Your task to perform on an android device: open app "VLC for Android" (install if not already installed) and go to login screen Image 0: 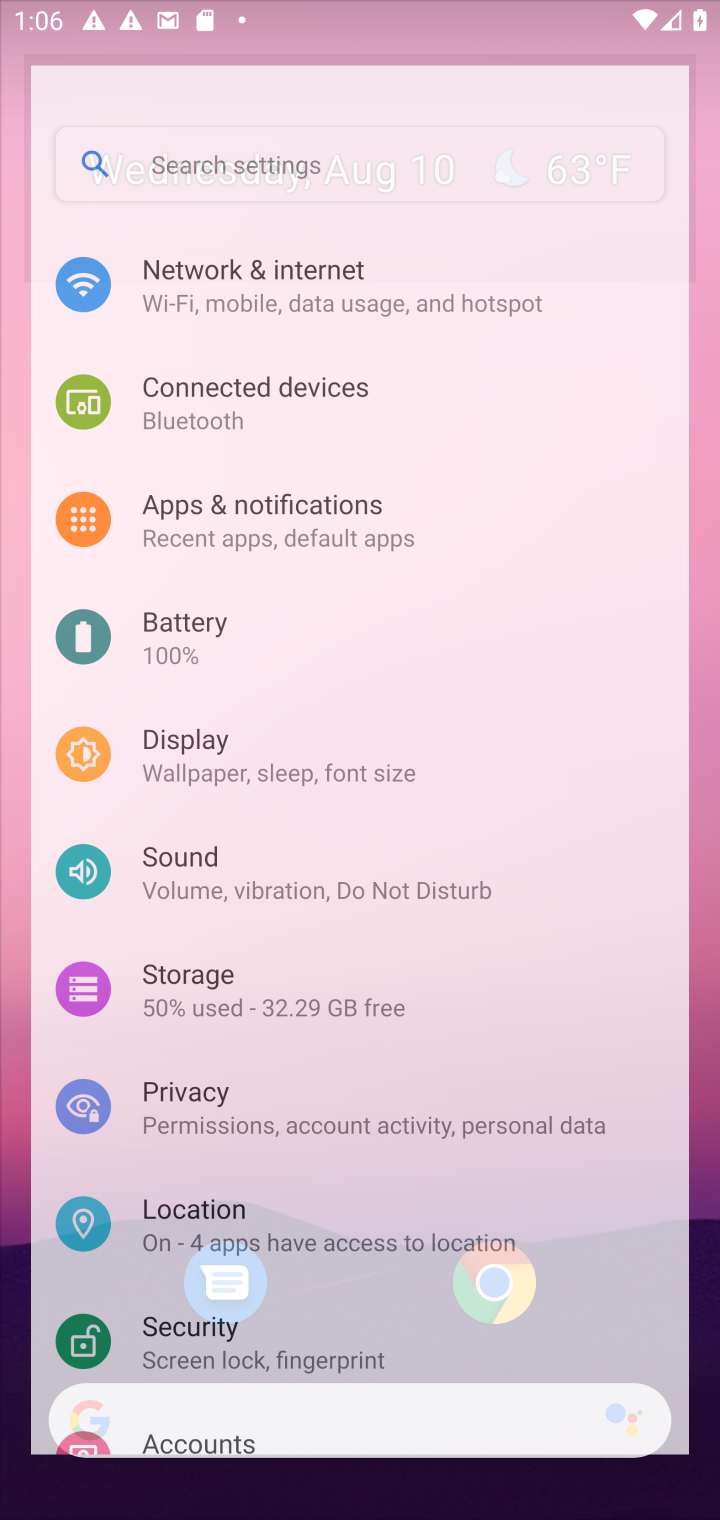
Step 0: press home button
Your task to perform on an android device: open app "VLC for Android" (install if not already installed) and go to login screen Image 1: 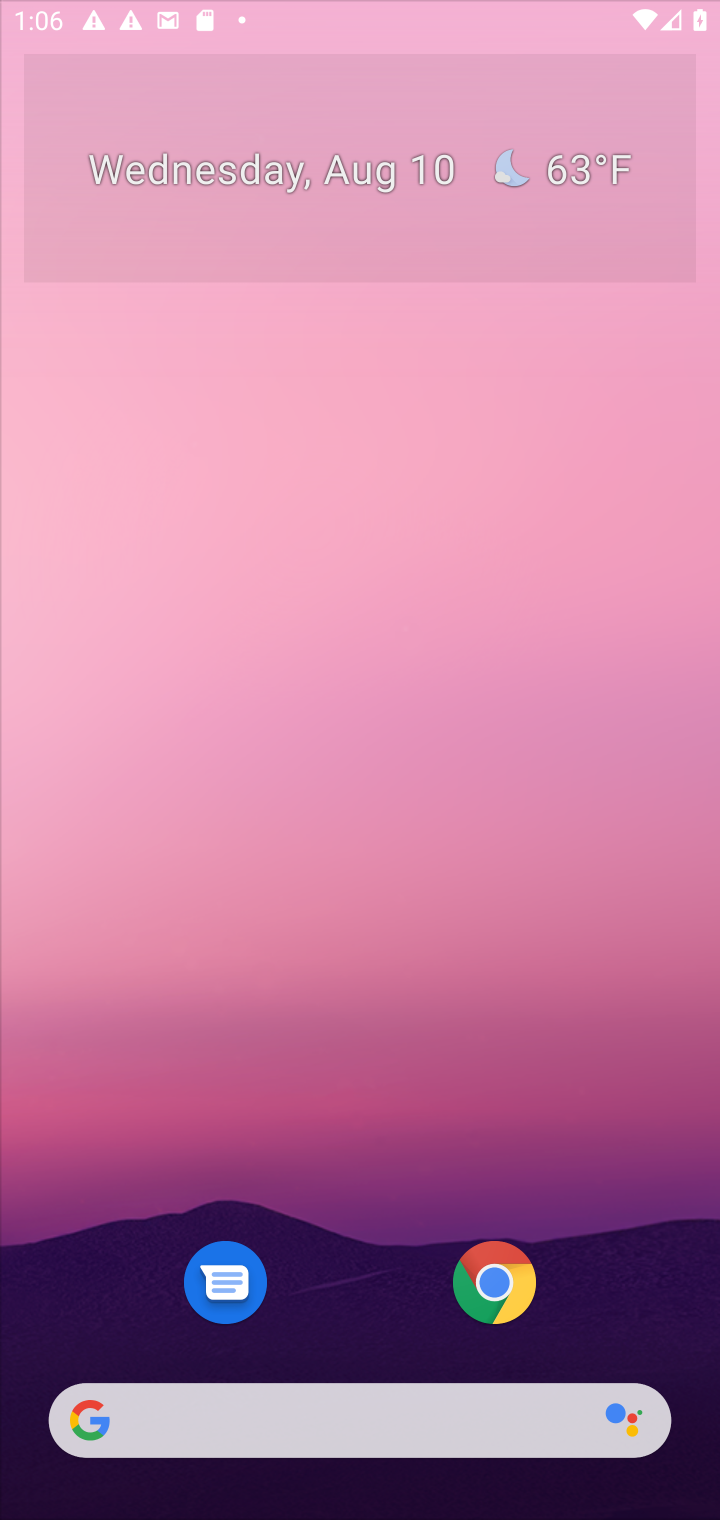
Step 1: press home button
Your task to perform on an android device: open app "VLC for Android" (install if not already installed) and go to login screen Image 2: 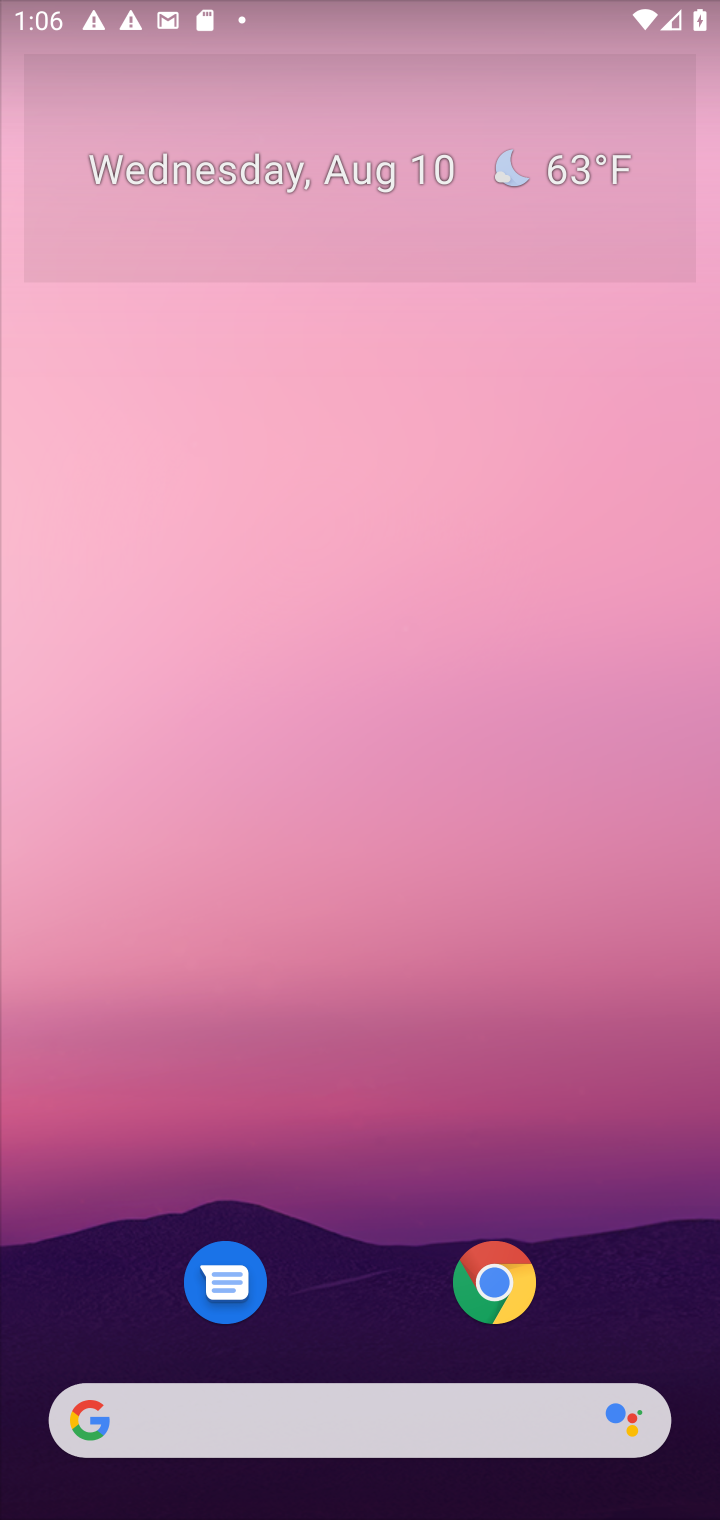
Step 2: drag from (258, 1115) to (335, 276)
Your task to perform on an android device: open app "VLC for Android" (install if not already installed) and go to login screen Image 3: 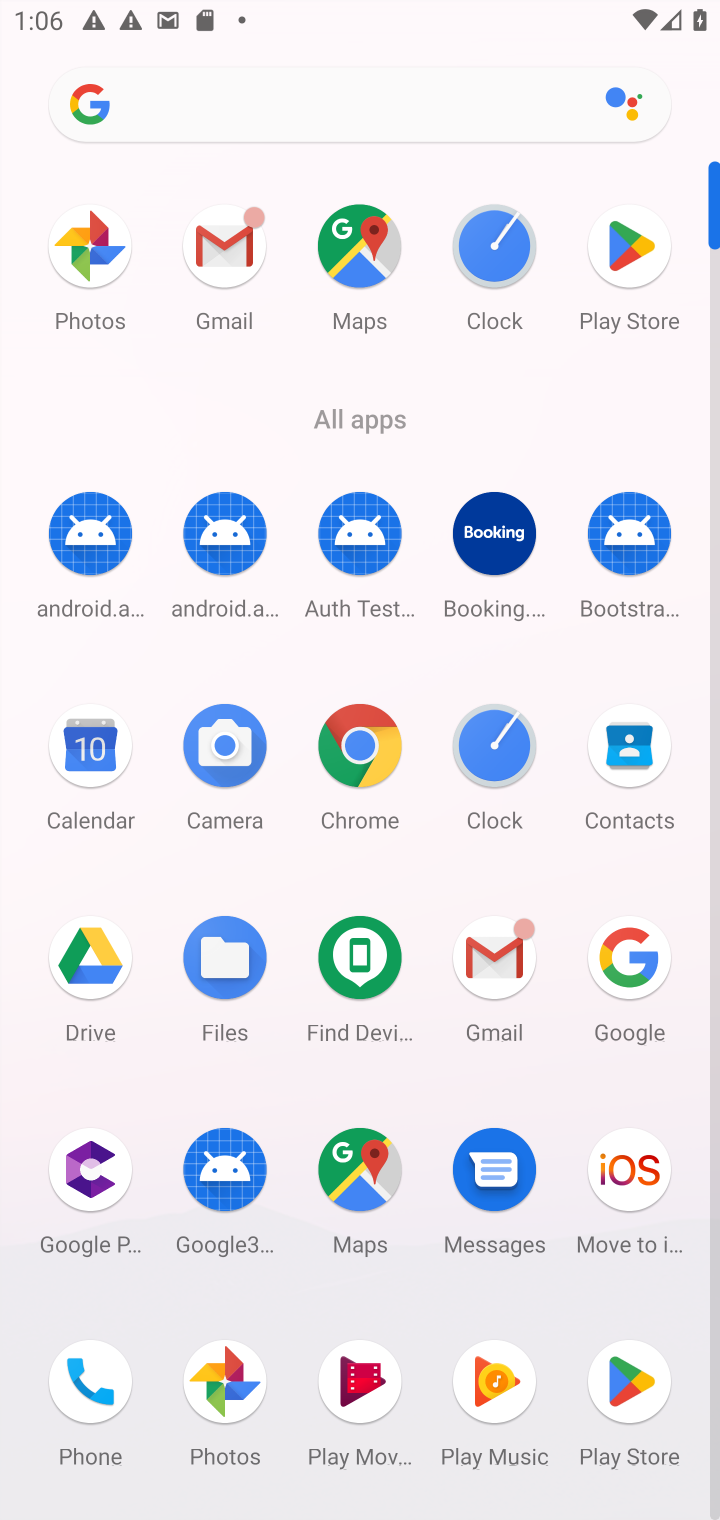
Step 3: drag from (195, 1142) to (405, 427)
Your task to perform on an android device: open app "VLC for Android" (install if not already installed) and go to login screen Image 4: 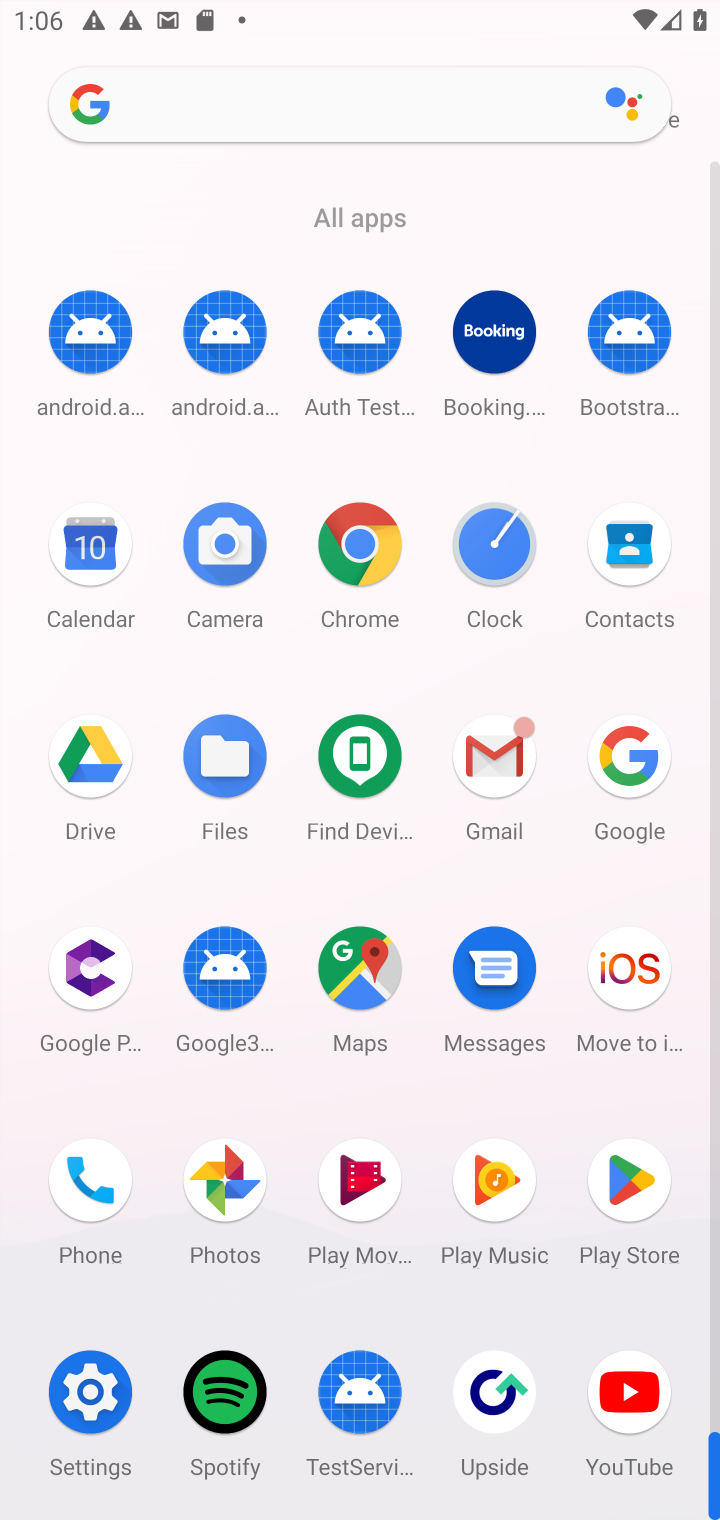
Step 4: click (640, 1155)
Your task to perform on an android device: open app "VLC for Android" (install if not already installed) and go to login screen Image 5: 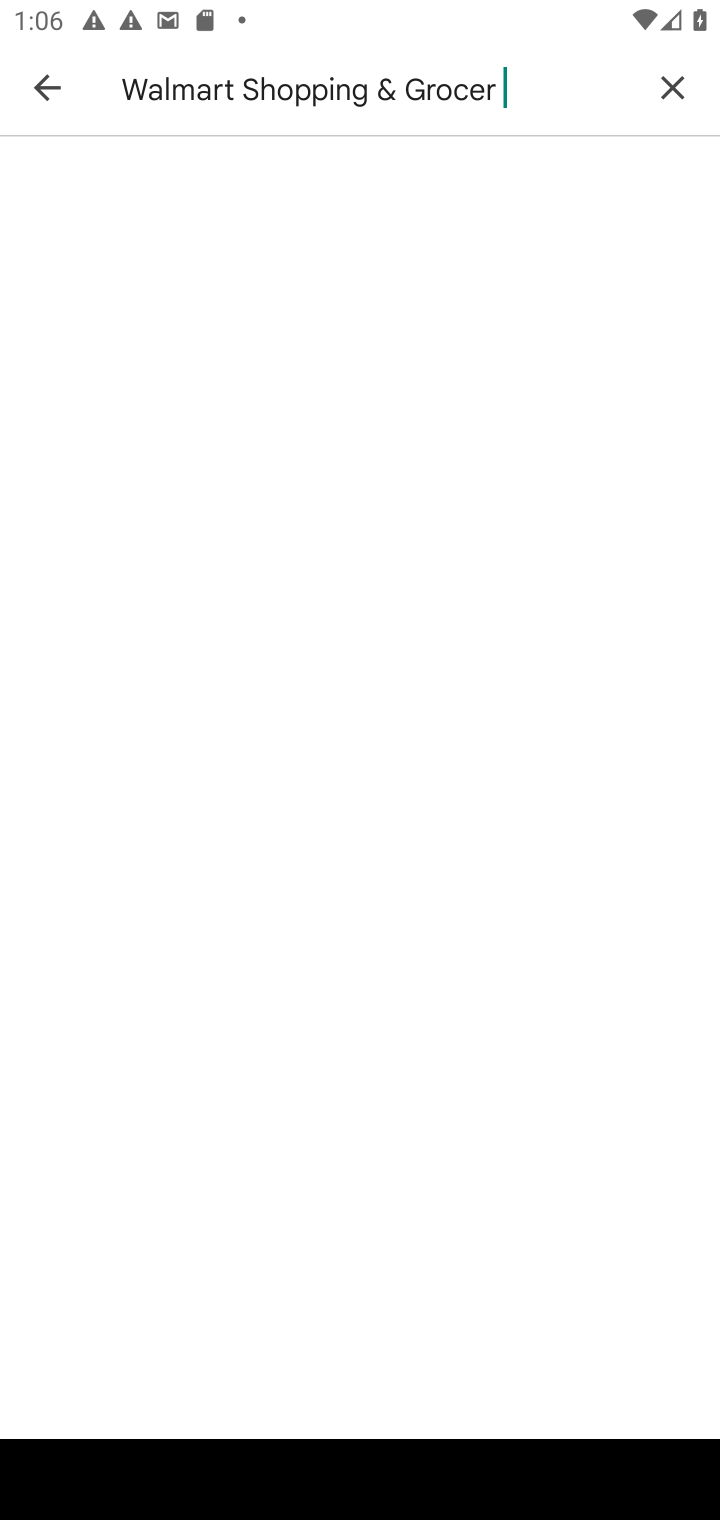
Step 5: click (647, 77)
Your task to perform on an android device: open app "VLC for Android" (install if not already installed) and go to login screen Image 6: 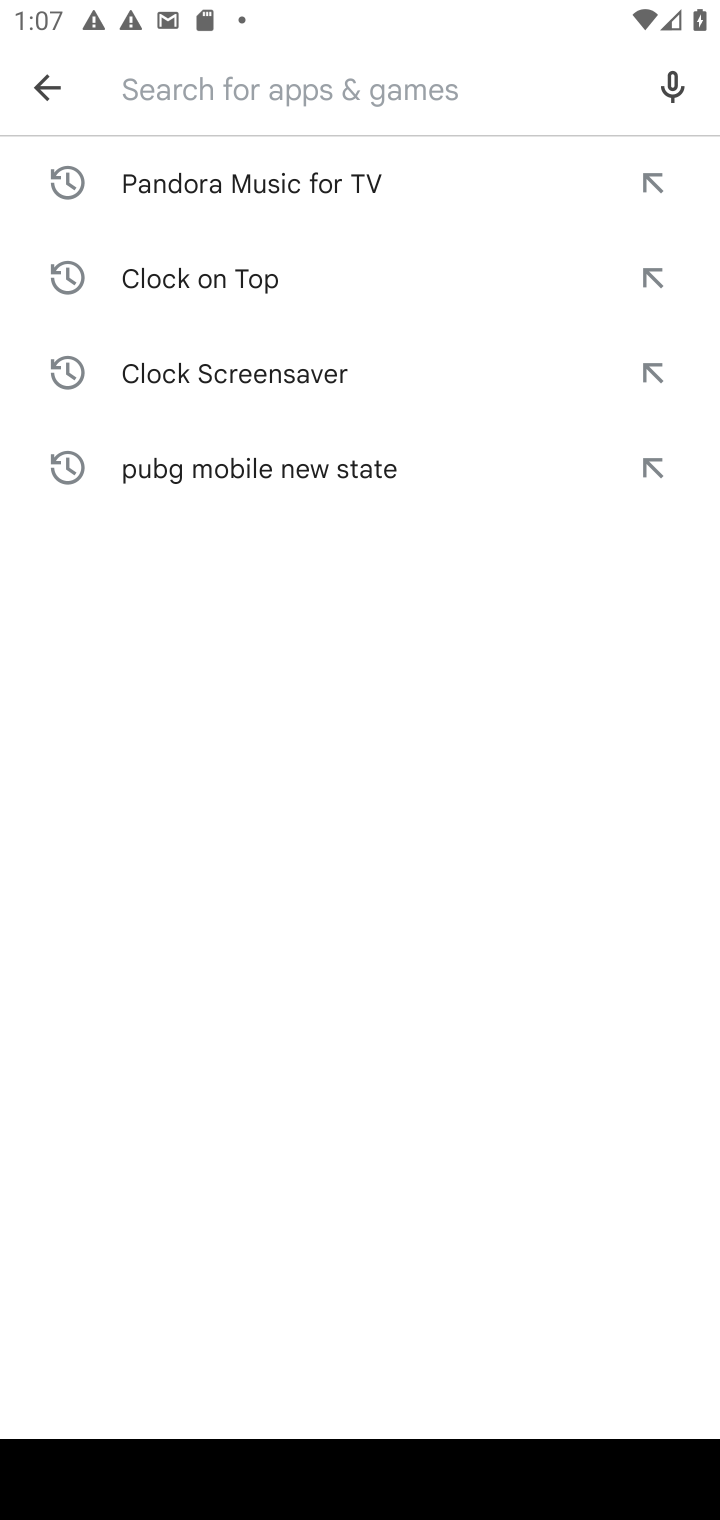
Step 6: click (365, 79)
Your task to perform on an android device: open app "VLC for Android" (install if not already installed) and go to login screen Image 7: 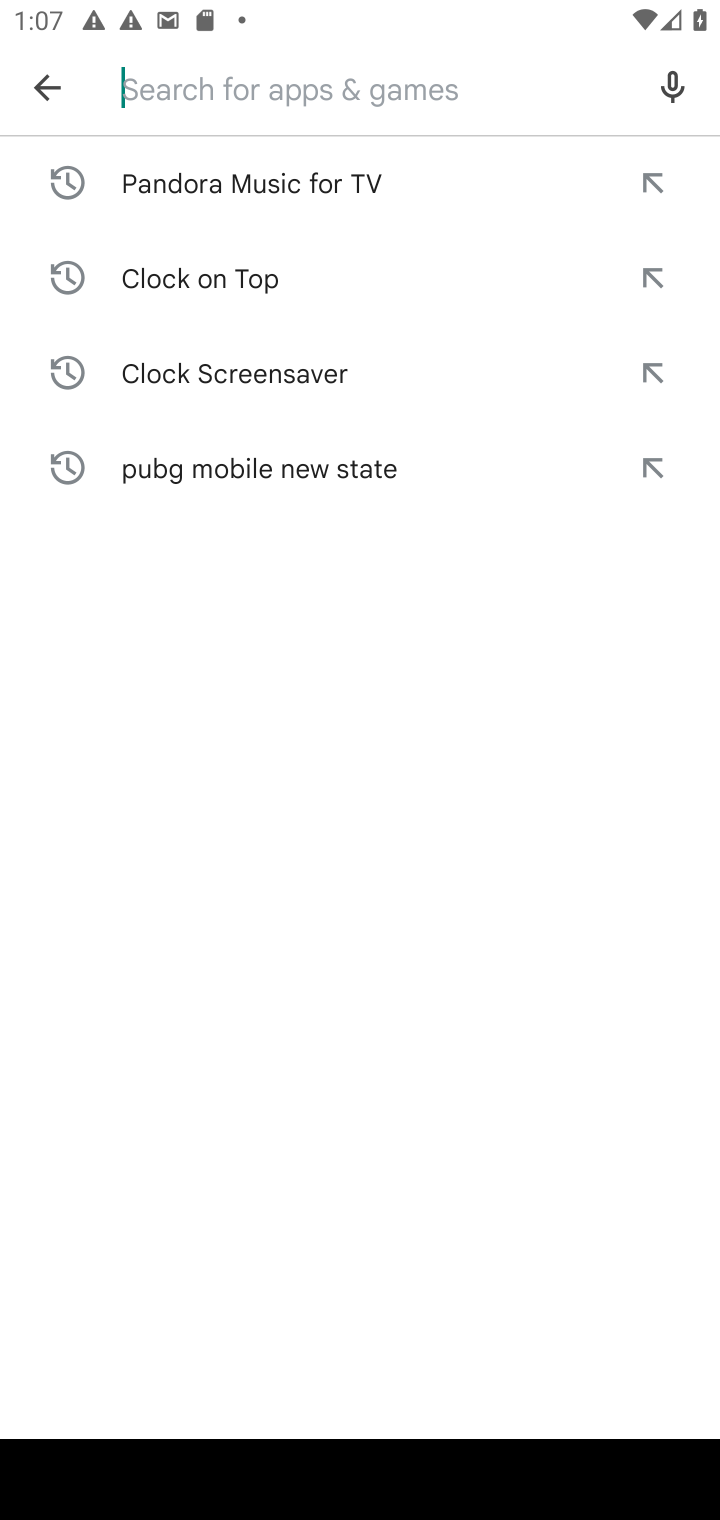
Step 7: type "VLC for Android" "
Your task to perform on an android device: open app "VLC for Android" (install if not already installed) and go to login screen Image 8: 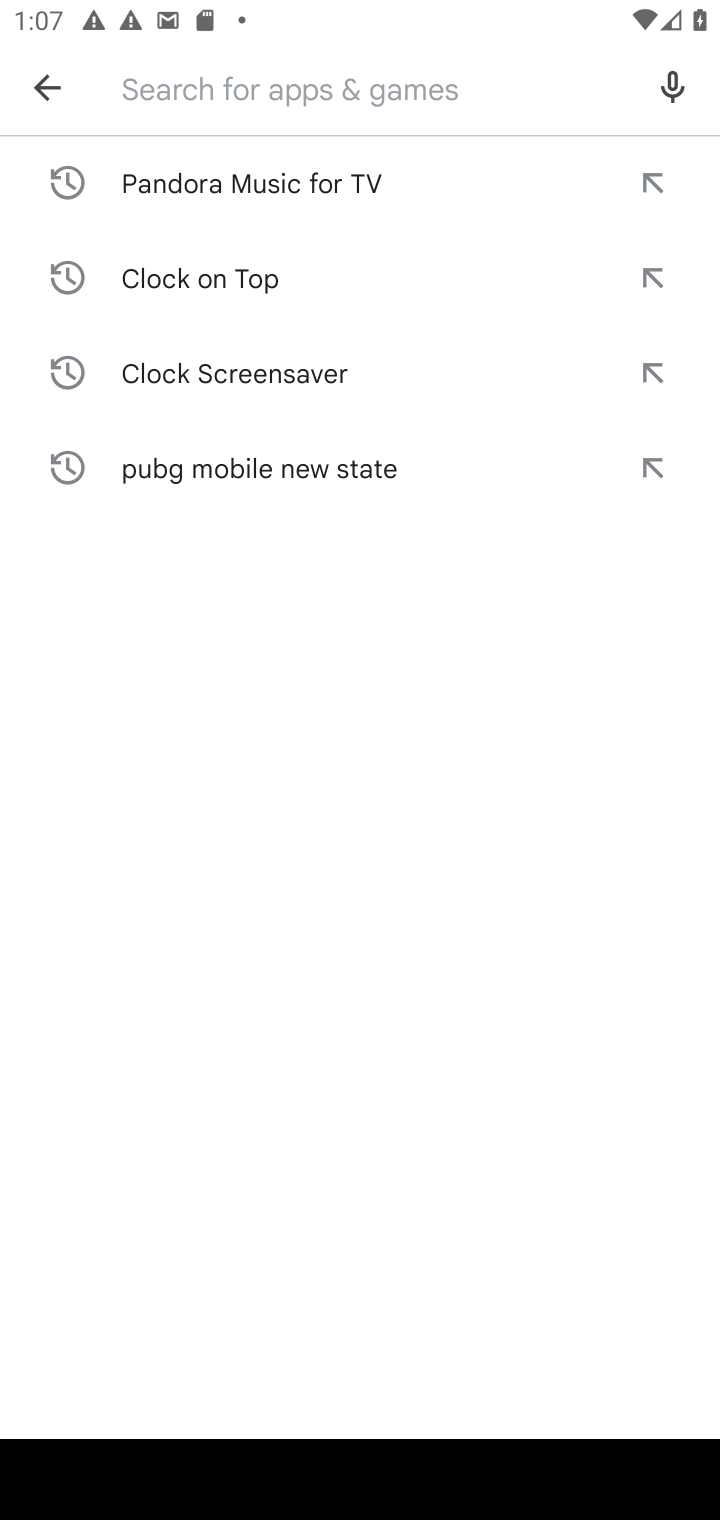
Step 8: click (309, 88)
Your task to perform on an android device: open app "VLC for Android" (install if not already installed) and go to login screen Image 9: 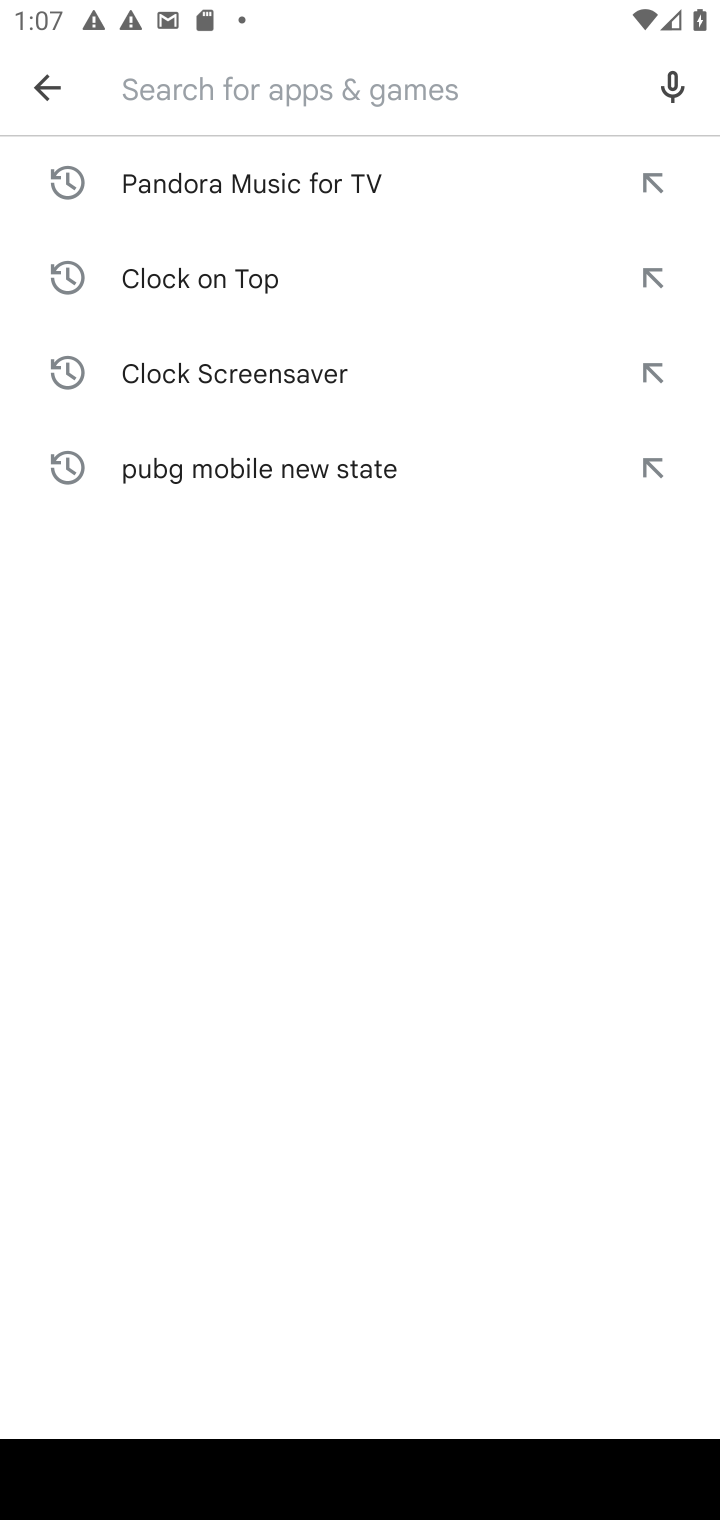
Step 9: type "vlc "
Your task to perform on an android device: open app "VLC for Android" (install if not already installed) and go to login screen Image 10: 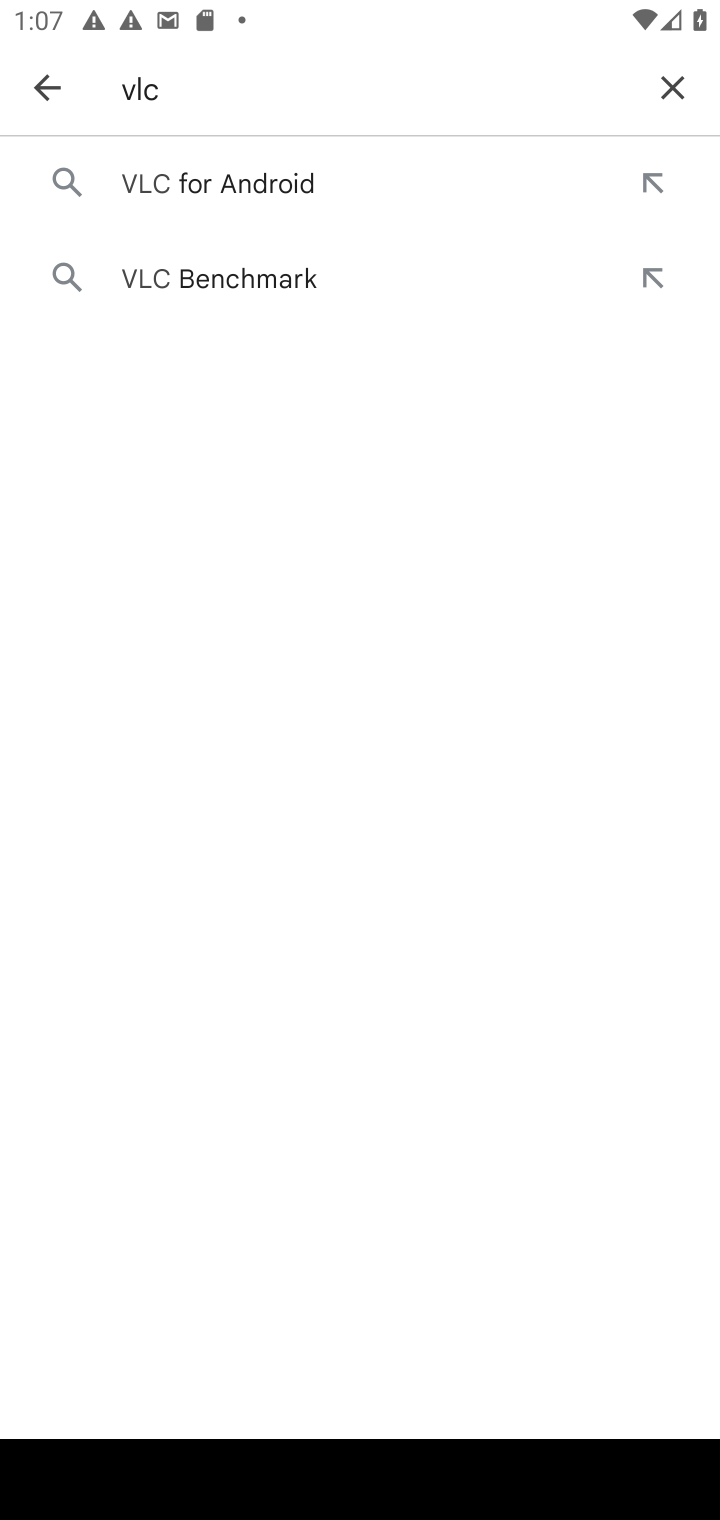
Step 10: click (304, 178)
Your task to perform on an android device: open app "VLC for Android" (install if not already installed) and go to login screen Image 11: 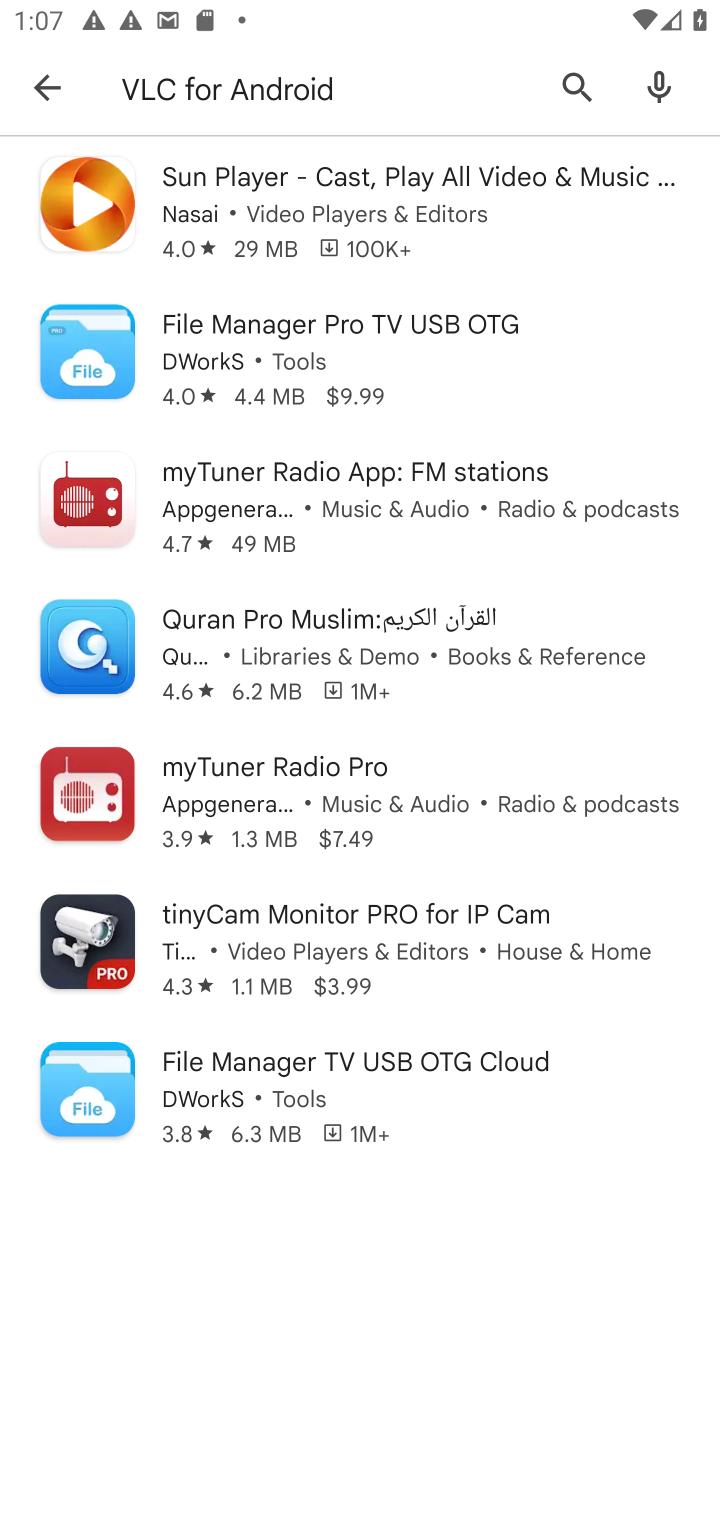
Step 11: click (409, 201)
Your task to perform on an android device: open app "VLC for Android" (install if not already installed) and go to login screen Image 12: 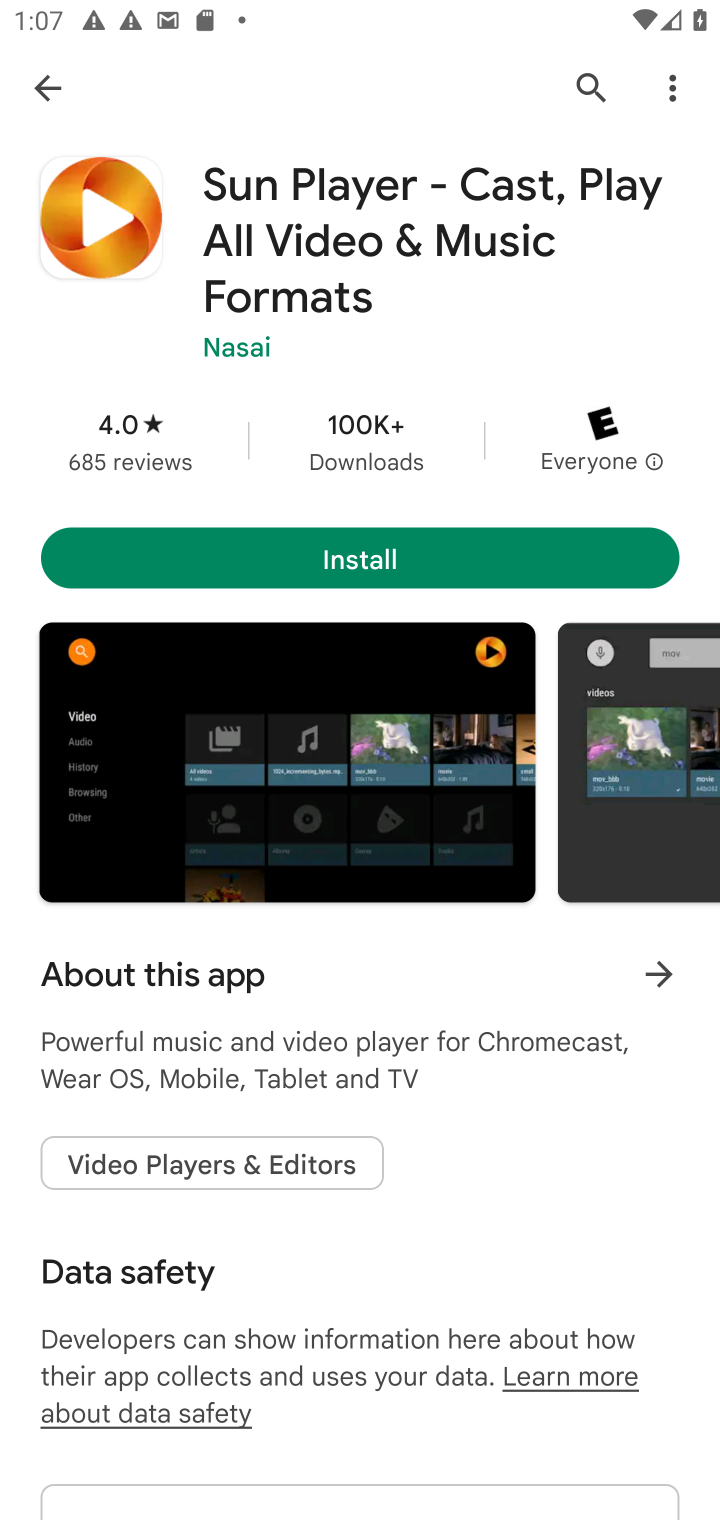
Step 12: click (427, 537)
Your task to perform on an android device: open app "VLC for Android" (install if not already installed) and go to login screen Image 13: 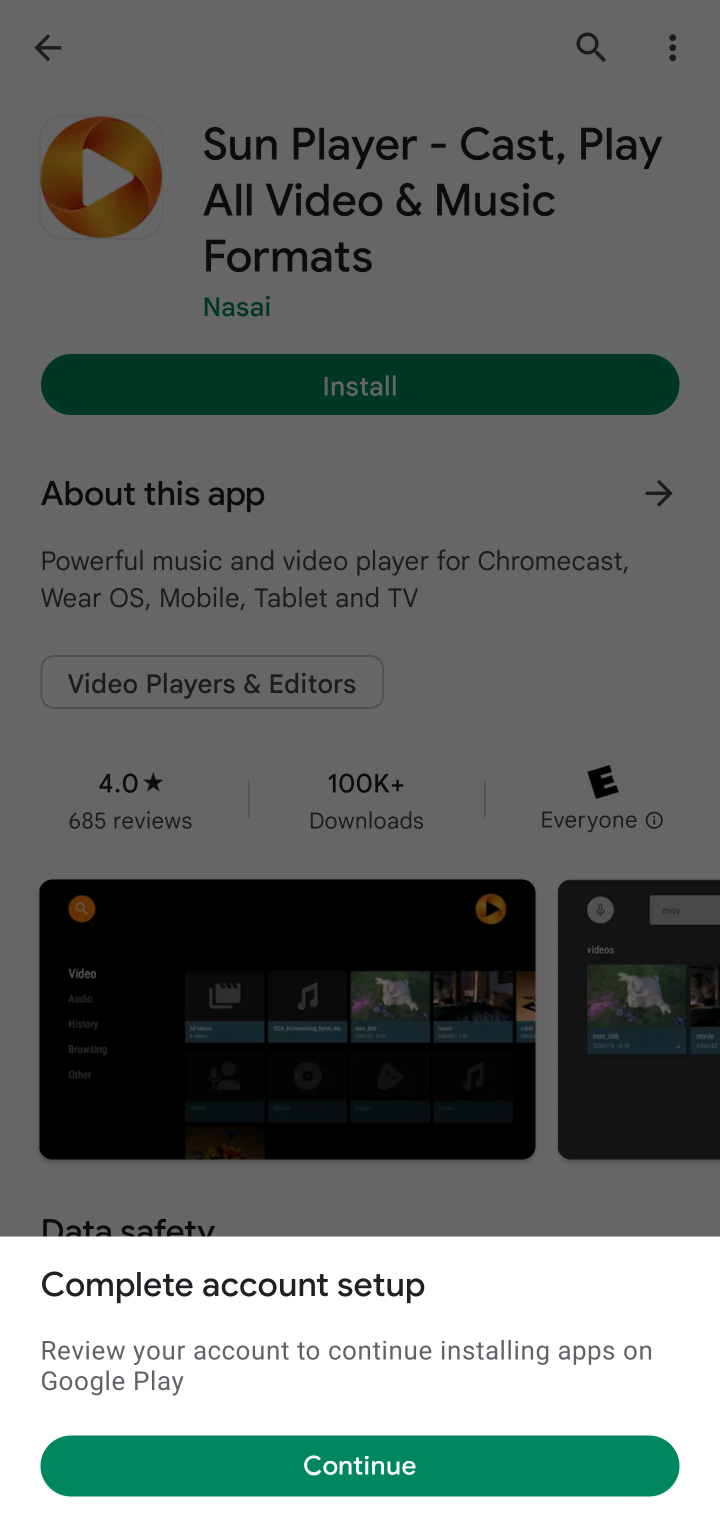
Step 13: task complete